Your task to perform on an android device: change alarm snooze length Image 0: 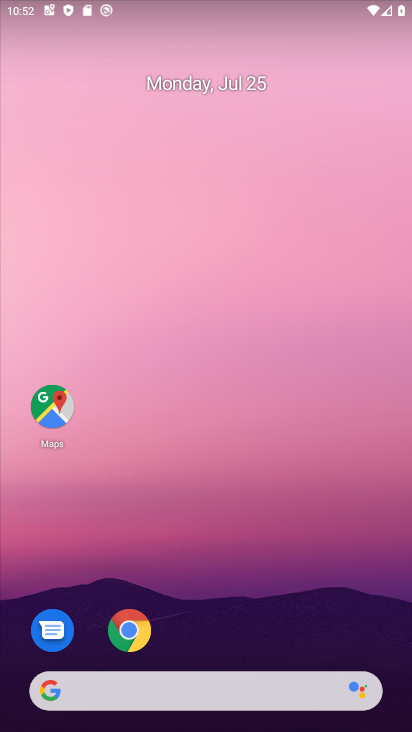
Step 0: drag from (329, 590) to (342, 186)
Your task to perform on an android device: change alarm snooze length Image 1: 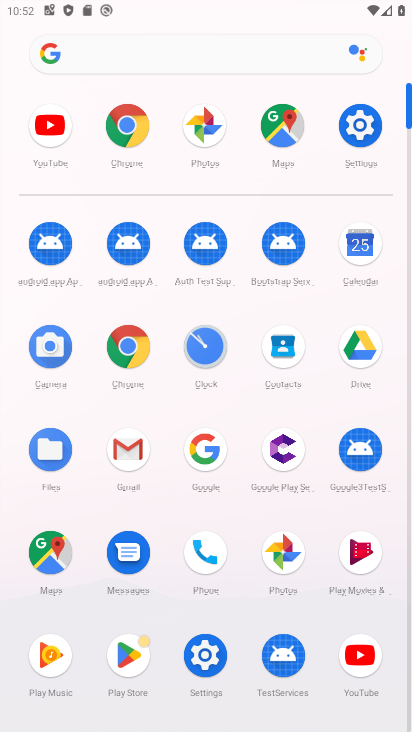
Step 1: click (210, 344)
Your task to perform on an android device: change alarm snooze length Image 2: 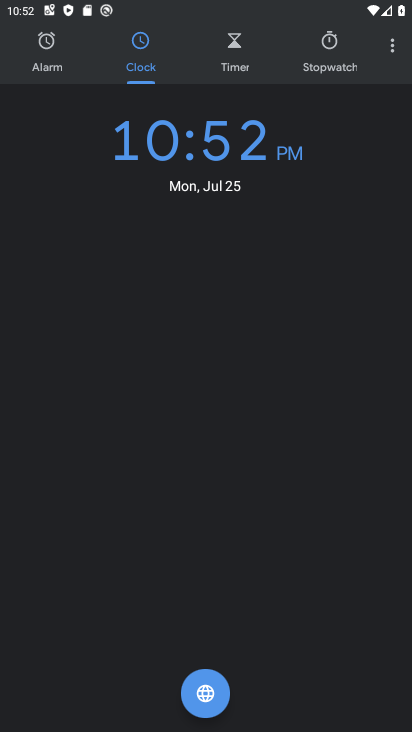
Step 2: click (393, 54)
Your task to perform on an android device: change alarm snooze length Image 3: 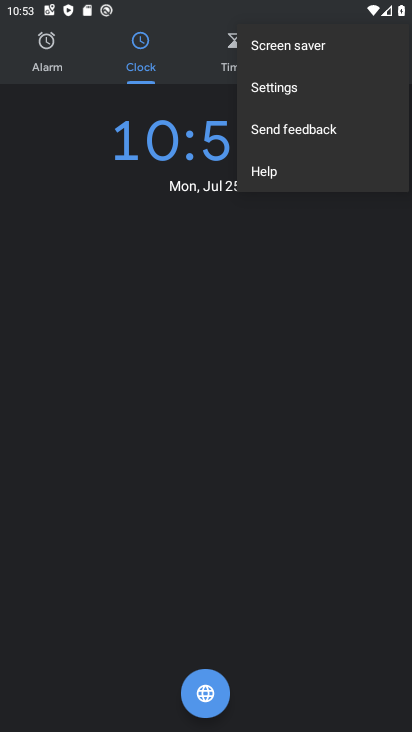
Step 3: click (322, 96)
Your task to perform on an android device: change alarm snooze length Image 4: 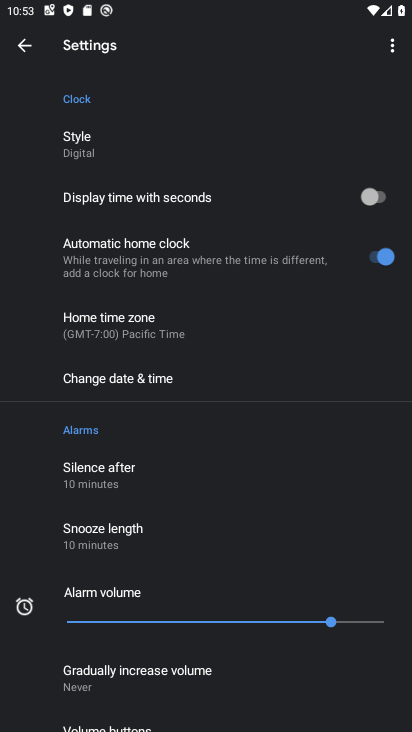
Step 4: drag from (286, 481) to (297, 366)
Your task to perform on an android device: change alarm snooze length Image 5: 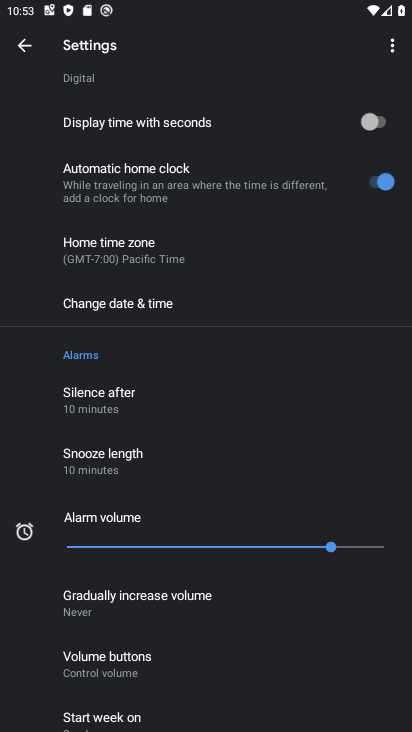
Step 5: drag from (286, 447) to (286, 348)
Your task to perform on an android device: change alarm snooze length Image 6: 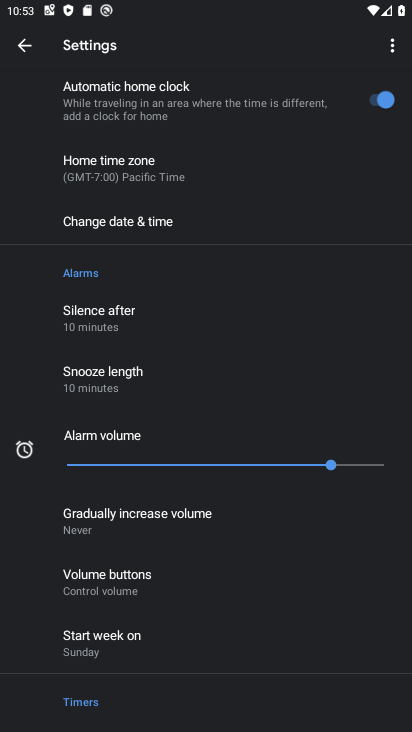
Step 6: drag from (297, 501) to (304, 308)
Your task to perform on an android device: change alarm snooze length Image 7: 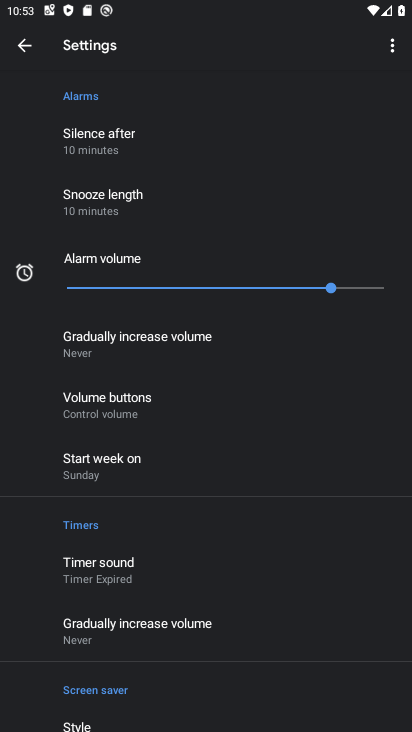
Step 7: click (159, 211)
Your task to perform on an android device: change alarm snooze length Image 8: 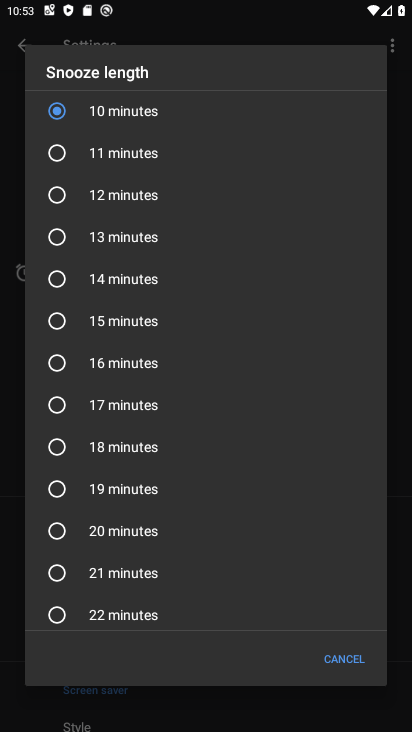
Step 8: click (113, 281)
Your task to perform on an android device: change alarm snooze length Image 9: 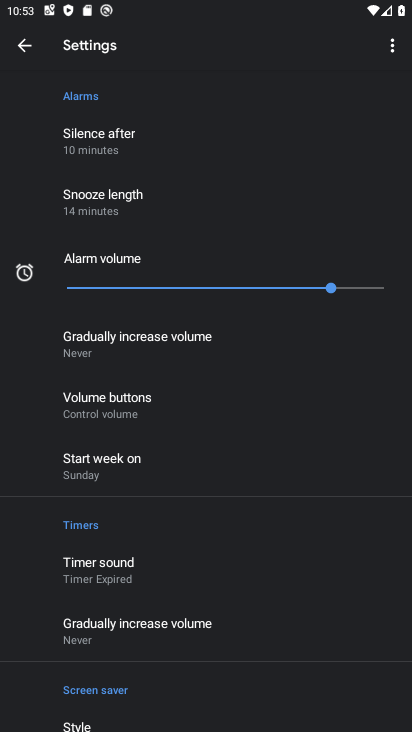
Step 9: task complete